Your task to perform on an android device: Open Maps and search for coffee Image 0: 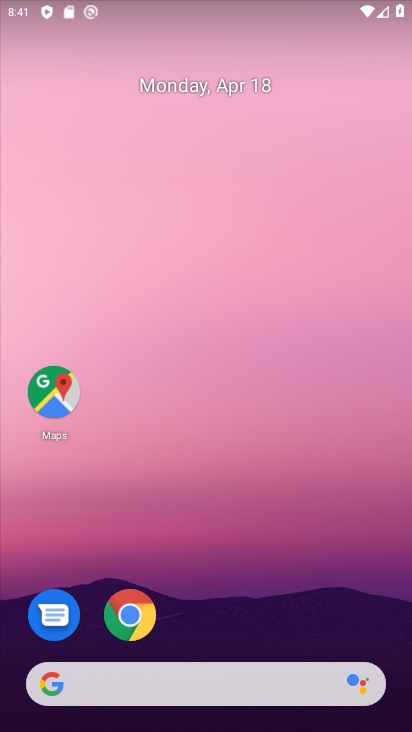
Step 0: drag from (363, 606) to (395, 141)
Your task to perform on an android device: Open Maps and search for coffee Image 1: 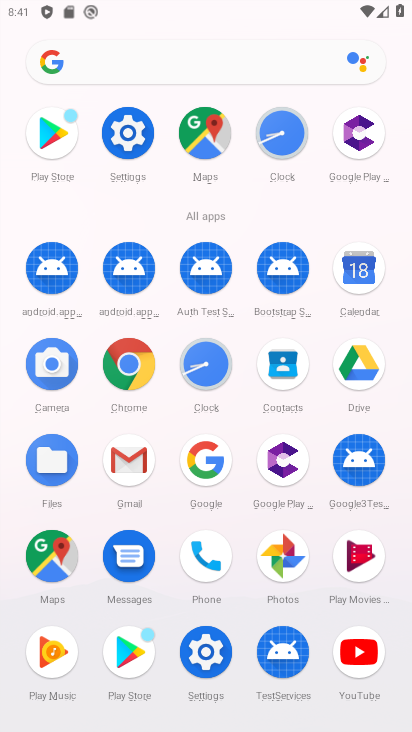
Step 1: click (39, 565)
Your task to perform on an android device: Open Maps and search for coffee Image 2: 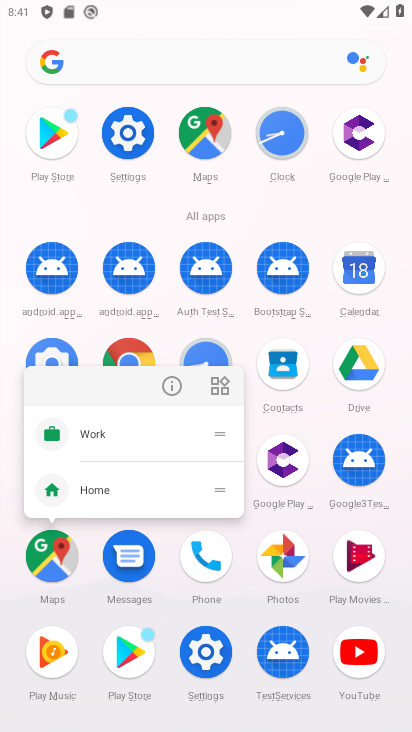
Step 2: click (39, 565)
Your task to perform on an android device: Open Maps and search for coffee Image 3: 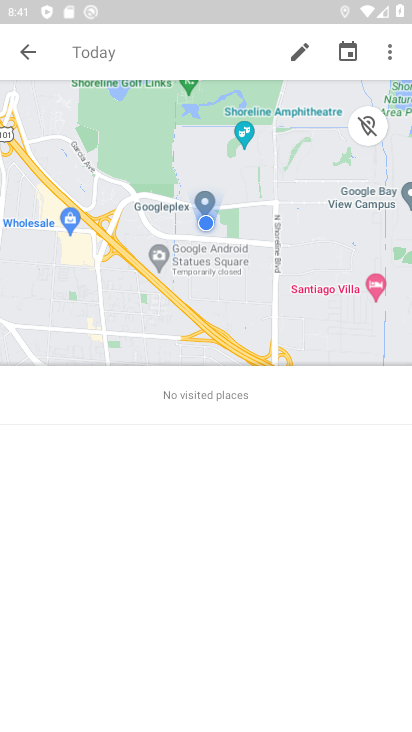
Step 3: click (19, 48)
Your task to perform on an android device: Open Maps and search for coffee Image 4: 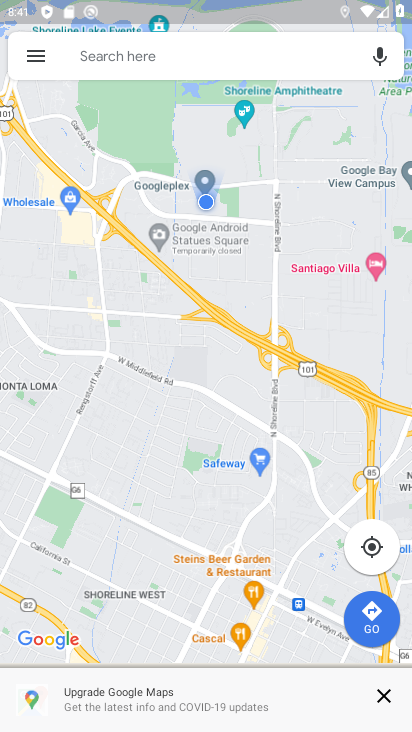
Step 4: click (141, 60)
Your task to perform on an android device: Open Maps and search for coffee Image 5: 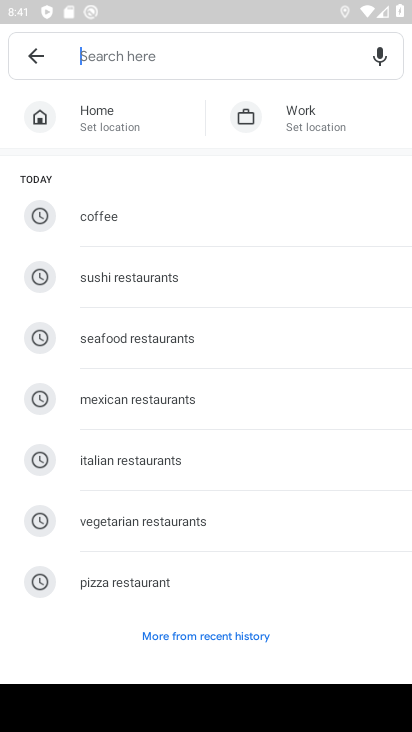
Step 5: click (100, 218)
Your task to perform on an android device: Open Maps and search for coffee Image 6: 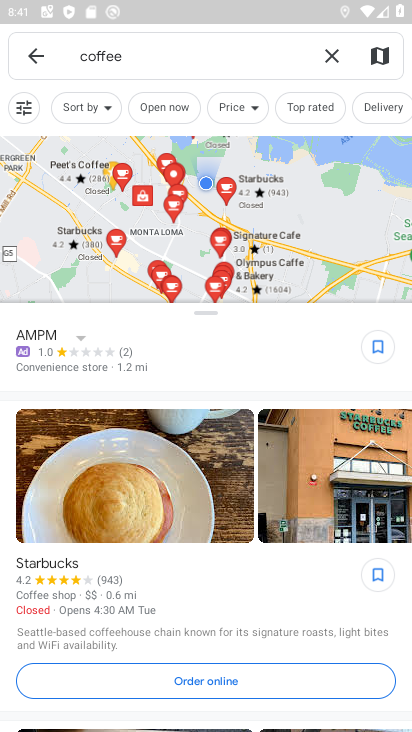
Step 6: task complete